Your task to perform on an android device: Open the calendar app, open the side menu, and click the "Day" option Image 0: 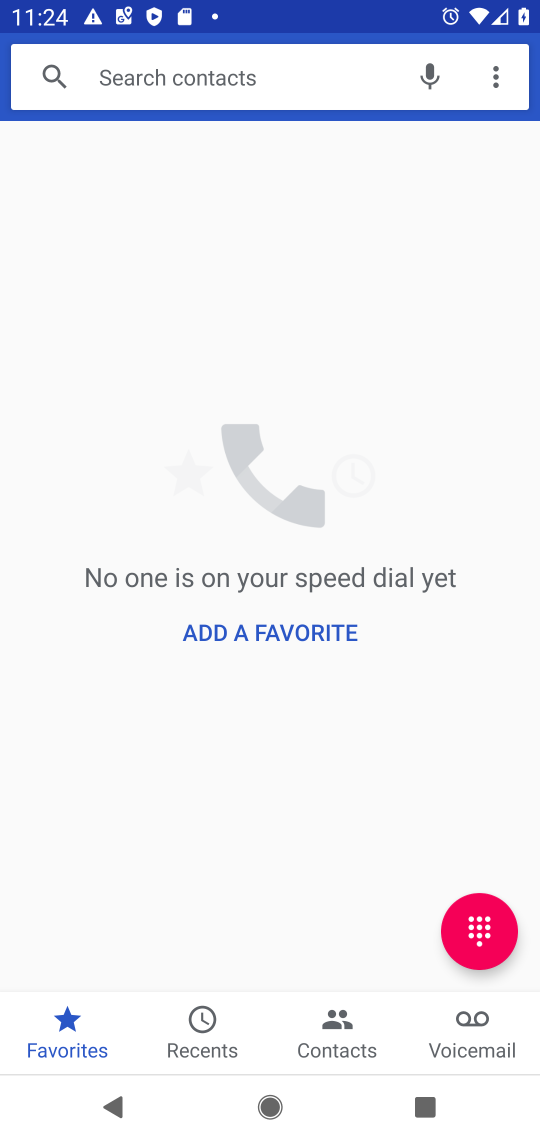
Step 0: press home button
Your task to perform on an android device: Open the calendar app, open the side menu, and click the "Day" option Image 1: 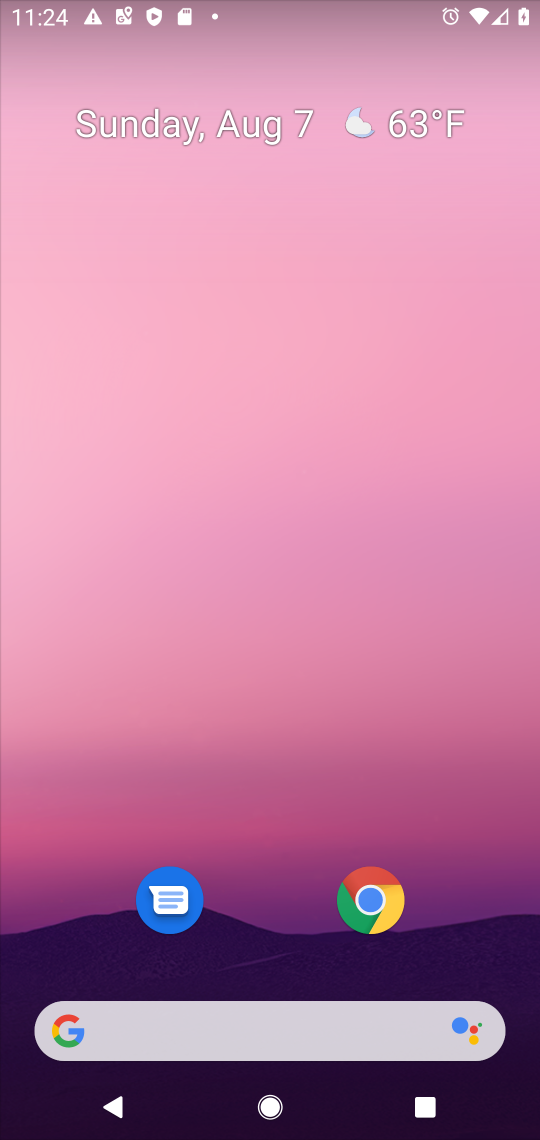
Step 1: drag from (264, 959) to (307, 126)
Your task to perform on an android device: Open the calendar app, open the side menu, and click the "Day" option Image 2: 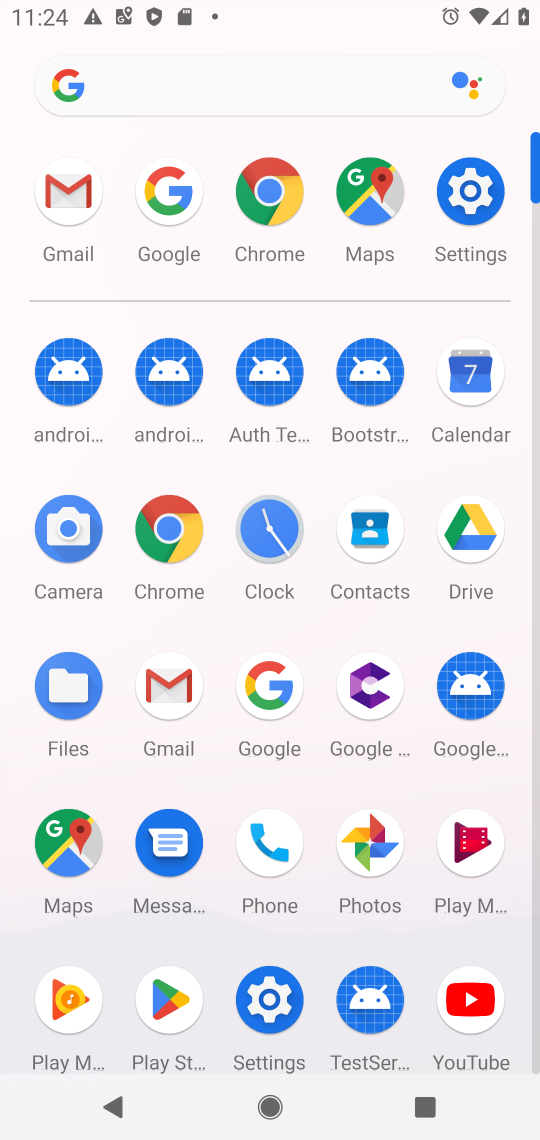
Step 2: click (472, 363)
Your task to perform on an android device: Open the calendar app, open the side menu, and click the "Day" option Image 3: 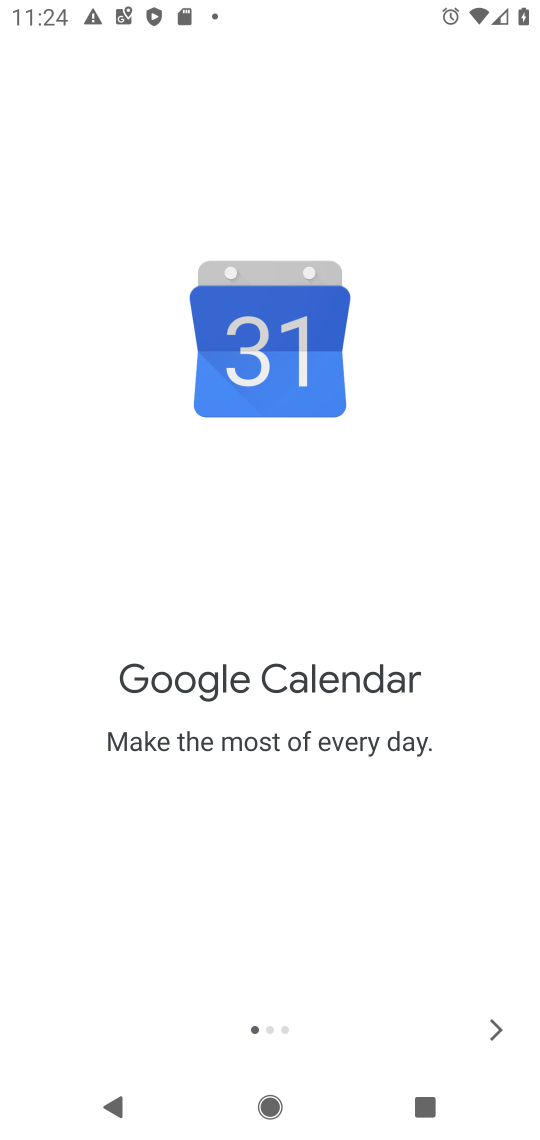
Step 3: click (482, 1025)
Your task to perform on an android device: Open the calendar app, open the side menu, and click the "Day" option Image 4: 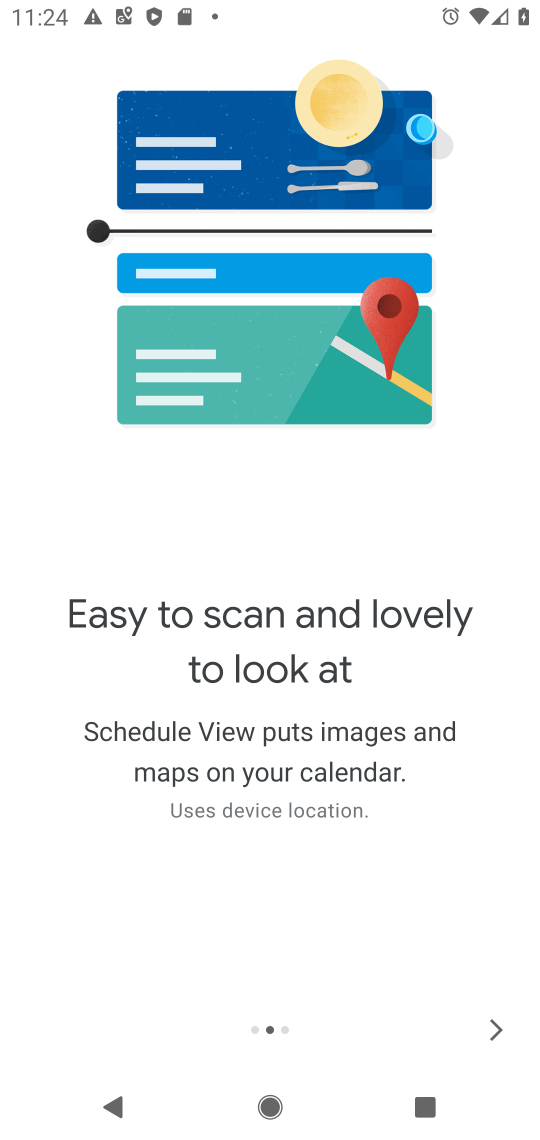
Step 4: click (482, 1025)
Your task to perform on an android device: Open the calendar app, open the side menu, and click the "Day" option Image 5: 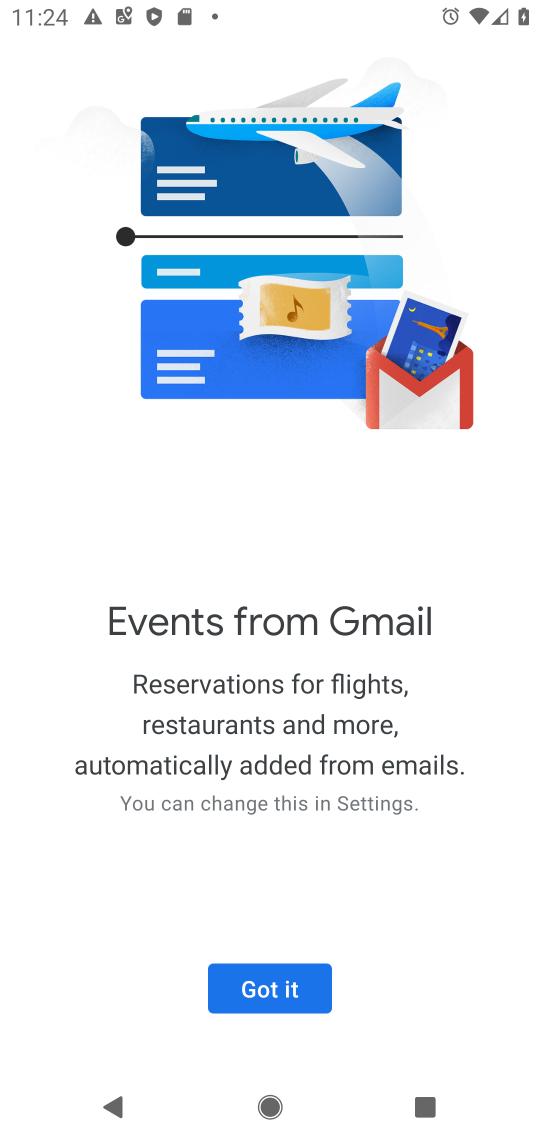
Step 5: click (267, 979)
Your task to perform on an android device: Open the calendar app, open the side menu, and click the "Day" option Image 6: 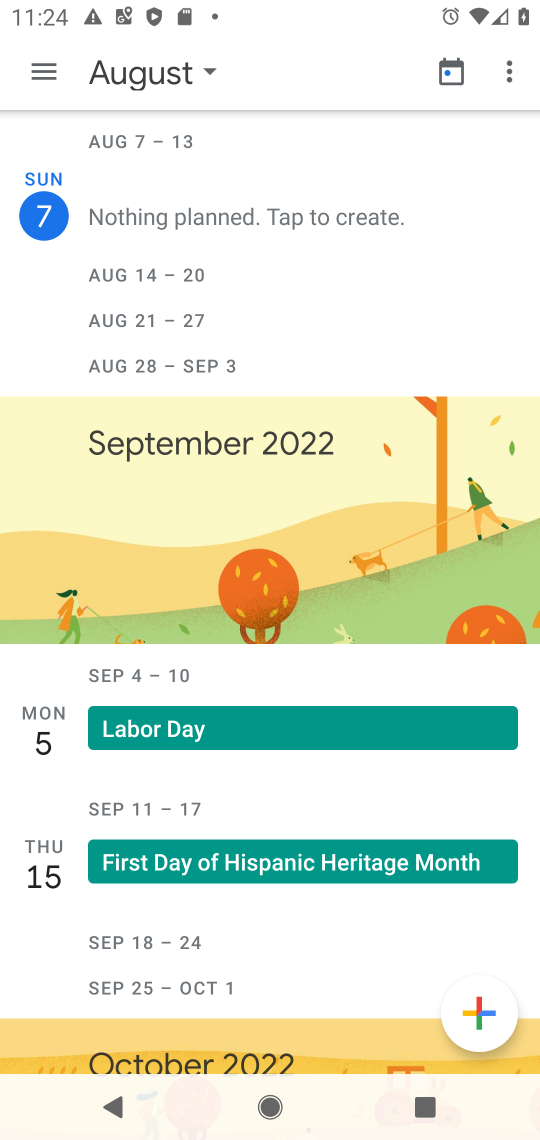
Step 6: click (39, 74)
Your task to perform on an android device: Open the calendar app, open the side menu, and click the "Day" option Image 7: 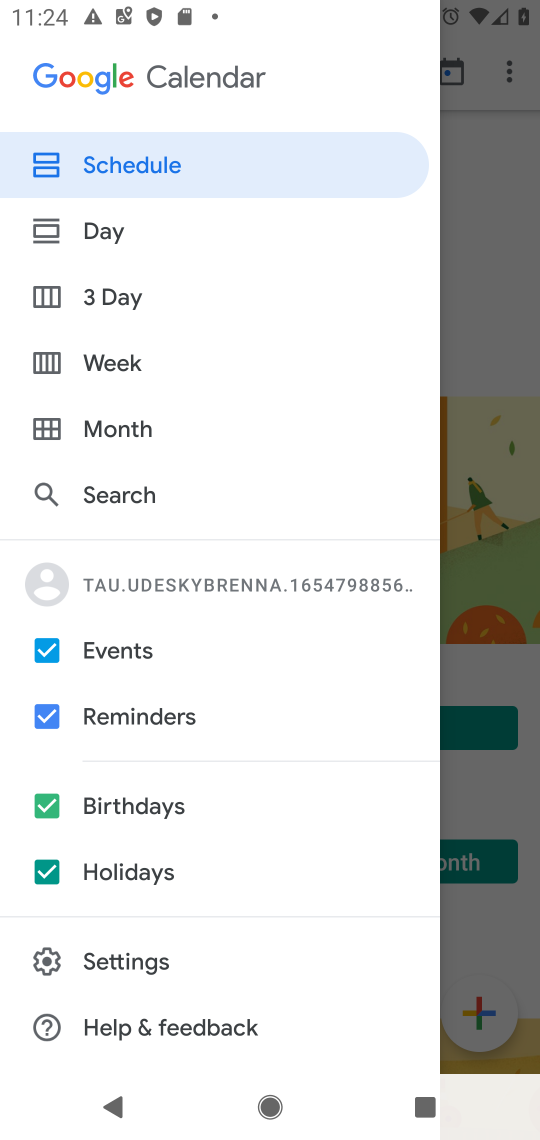
Step 7: click (77, 222)
Your task to perform on an android device: Open the calendar app, open the side menu, and click the "Day" option Image 8: 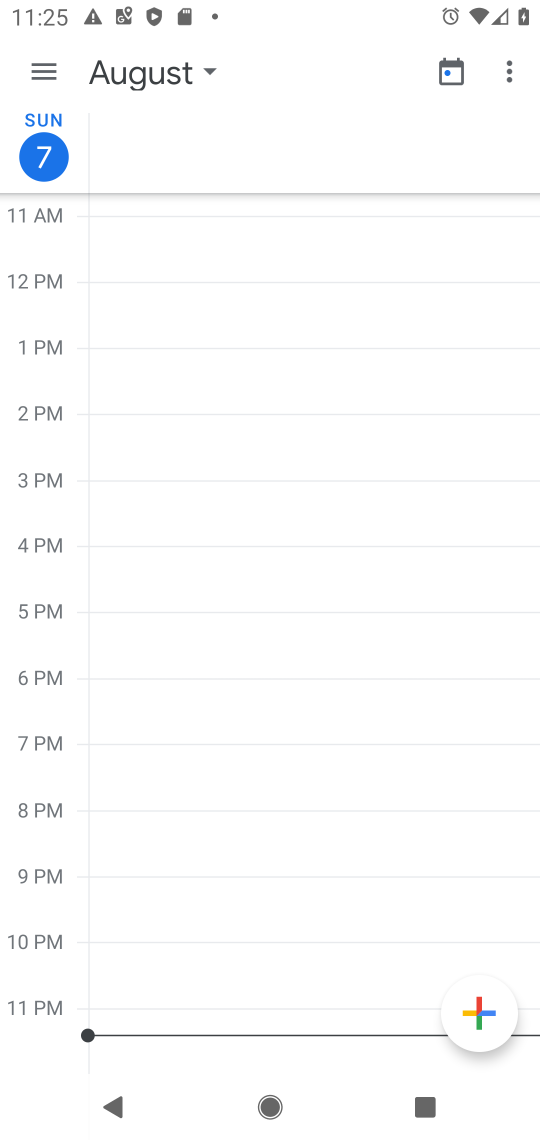
Step 8: task complete